Your task to perform on an android device: search for starred emails in the gmail app Image 0: 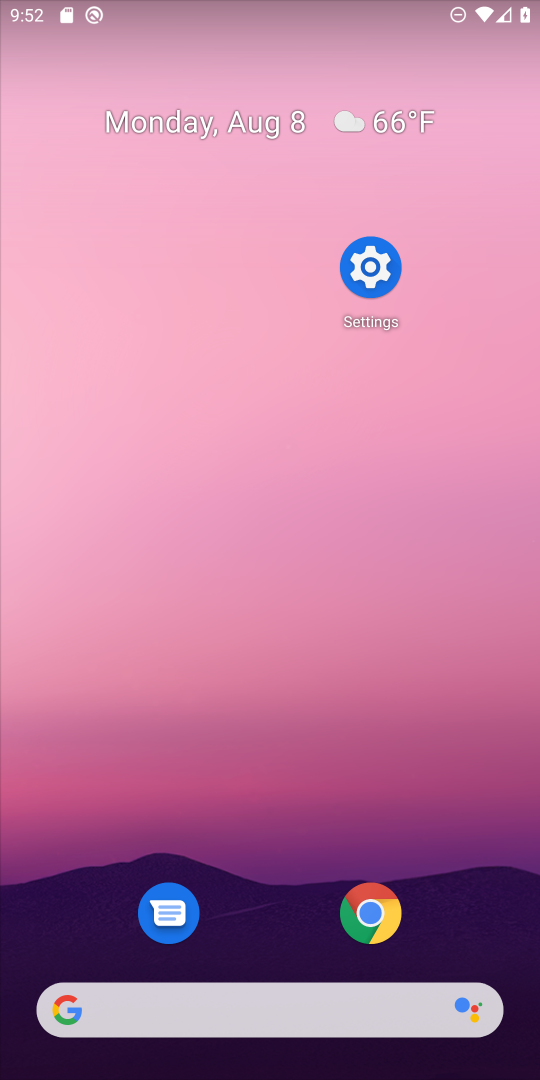
Step 0: drag from (236, 1000) to (231, 349)
Your task to perform on an android device: search for starred emails in the gmail app Image 1: 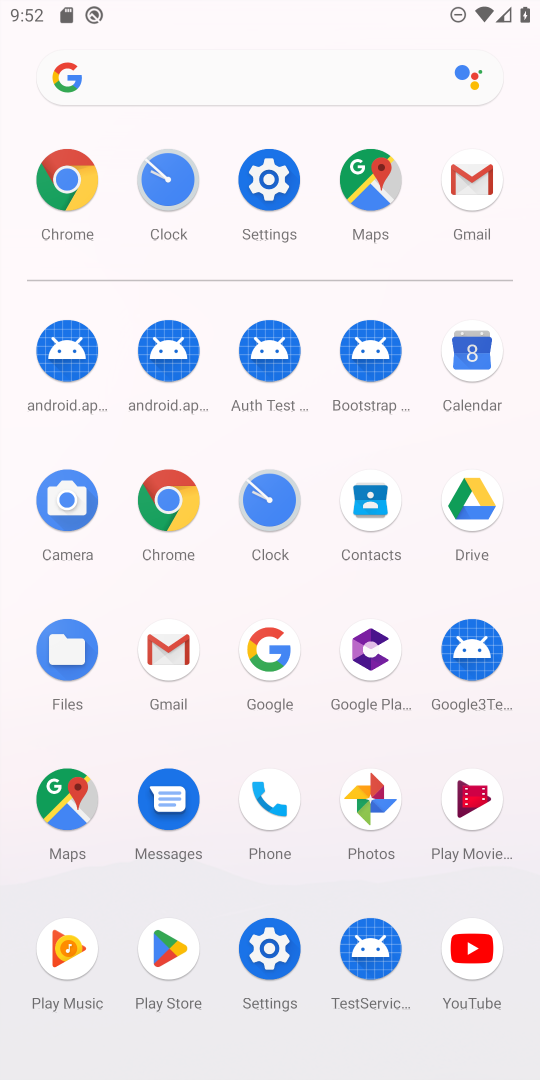
Step 1: click (470, 180)
Your task to perform on an android device: search for starred emails in the gmail app Image 2: 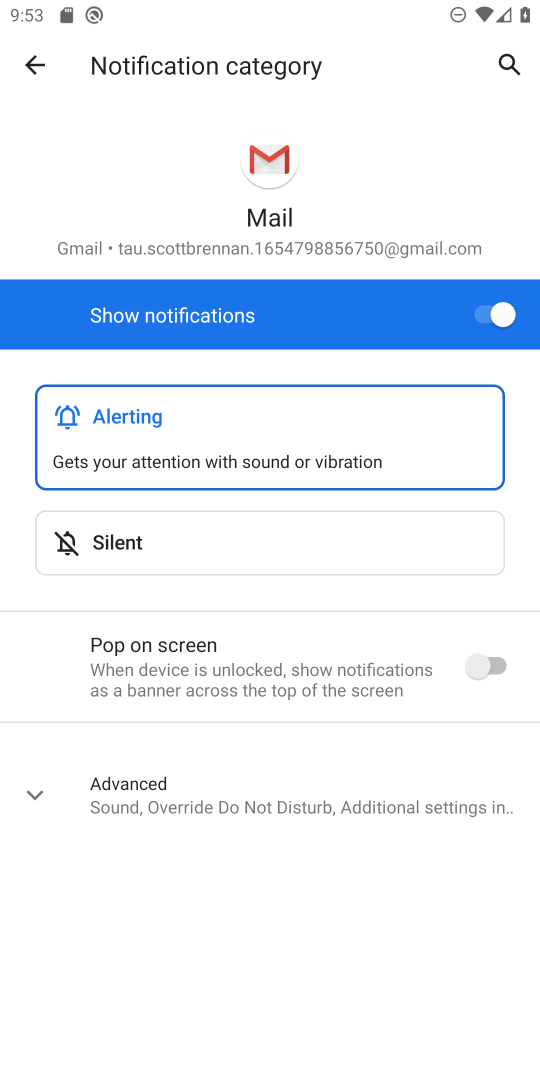
Step 2: press home button
Your task to perform on an android device: search for starred emails in the gmail app Image 3: 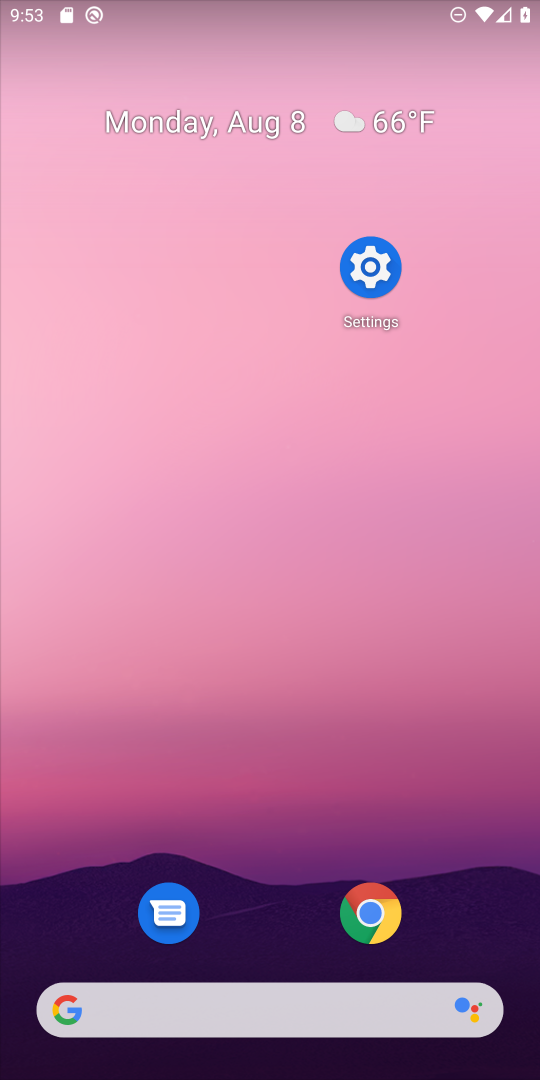
Step 3: drag from (254, 1000) to (293, 254)
Your task to perform on an android device: search for starred emails in the gmail app Image 4: 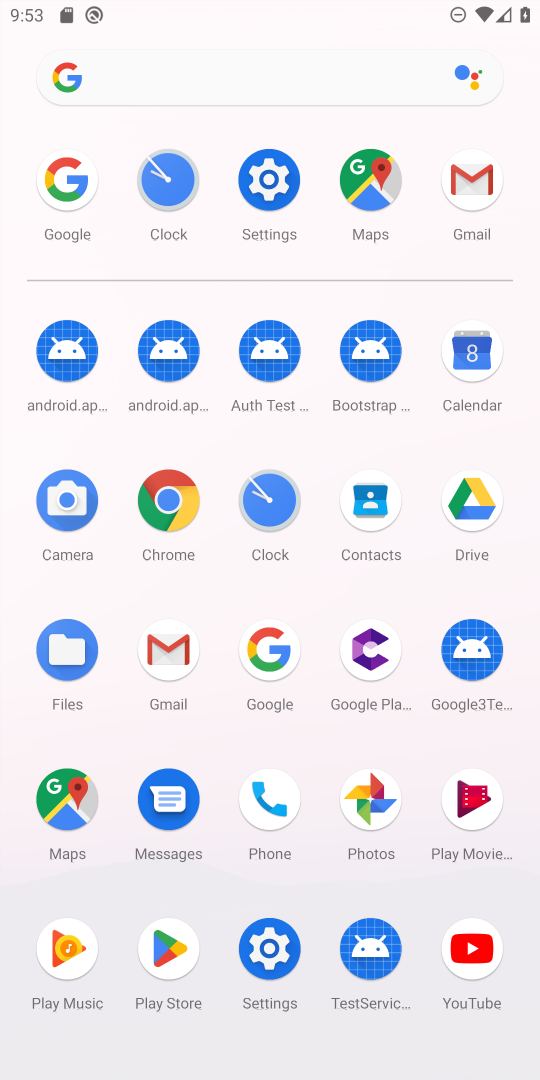
Step 4: click (476, 178)
Your task to perform on an android device: search for starred emails in the gmail app Image 5: 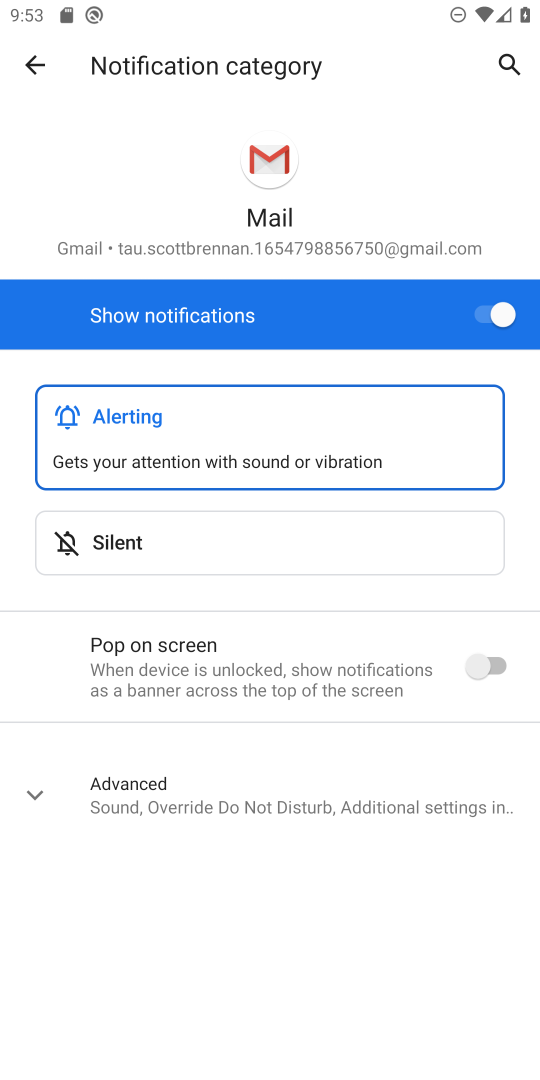
Step 5: press back button
Your task to perform on an android device: search for starred emails in the gmail app Image 6: 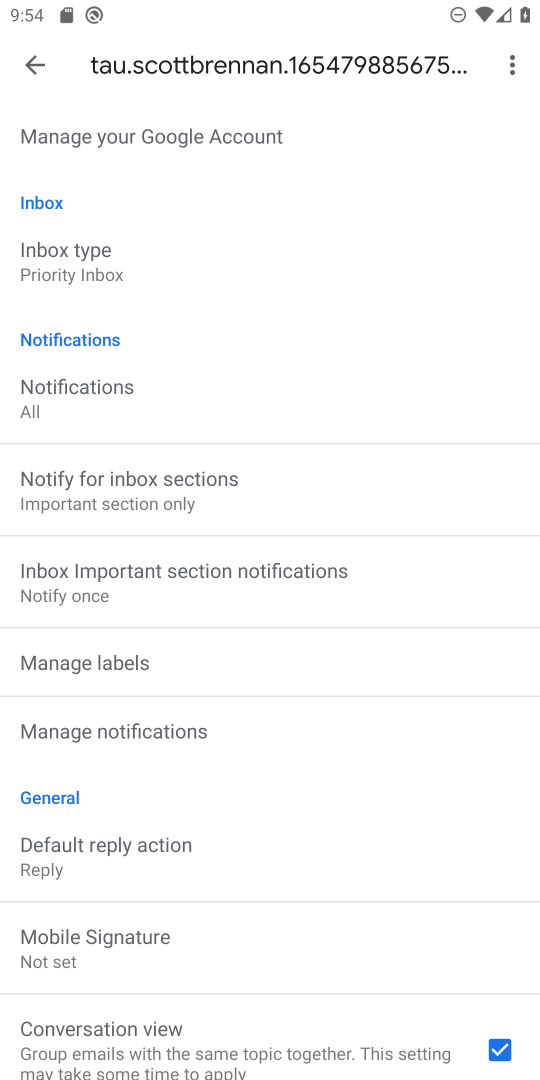
Step 6: press back button
Your task to perform on an android device: search for starred emails in the gmail app Image 7: 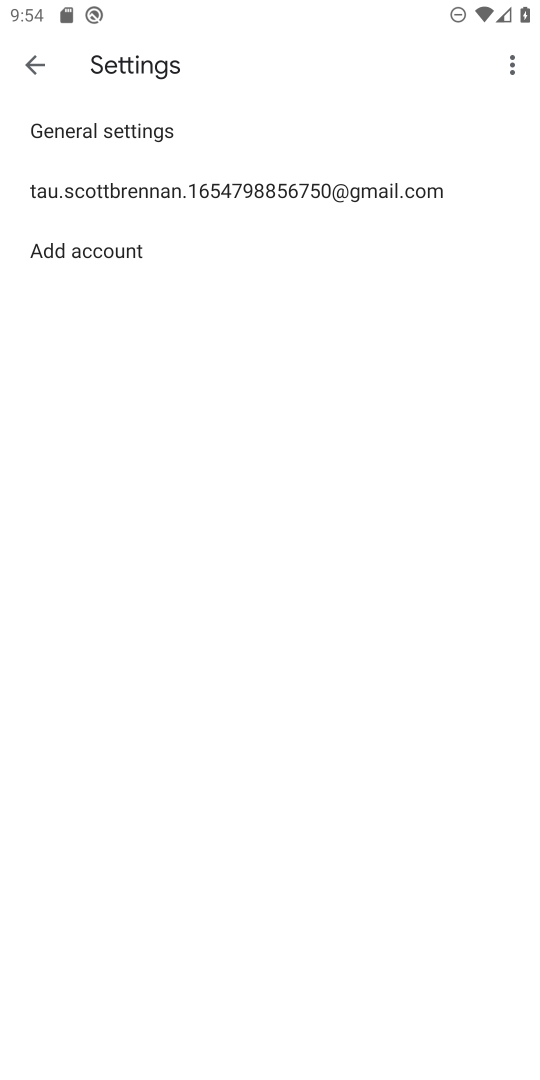
Step 7: press back button
Your task to perform on an android device: search for starred emails in the gmail app Image 8: 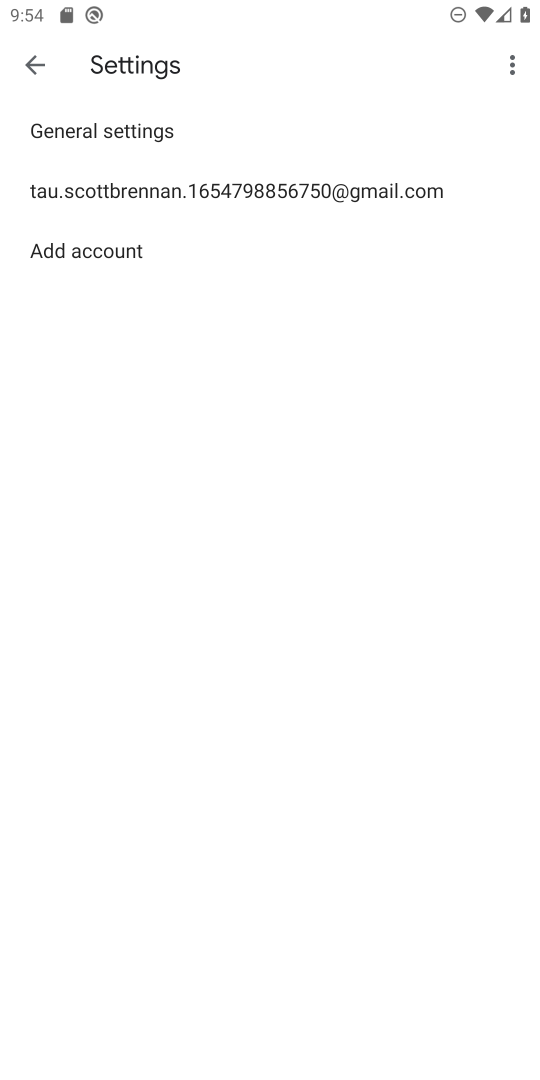
Step 8: press back button
Your task to perform on an android device: search for starred emails in the gmail app Image 9: 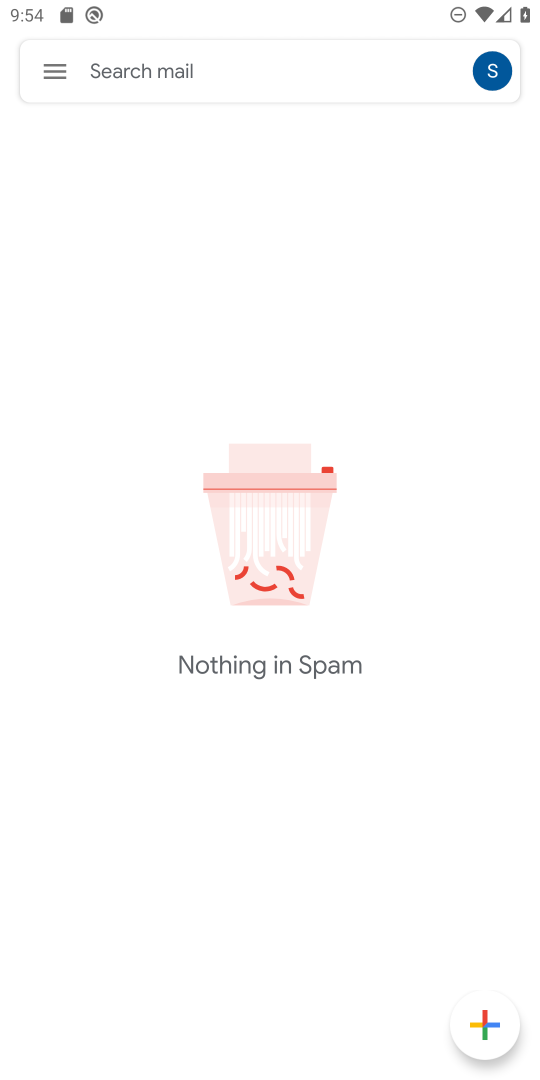
Step 9: click (47, 76)
Your task to perform on an android device: search for starred emails in the gmail app Image 10: 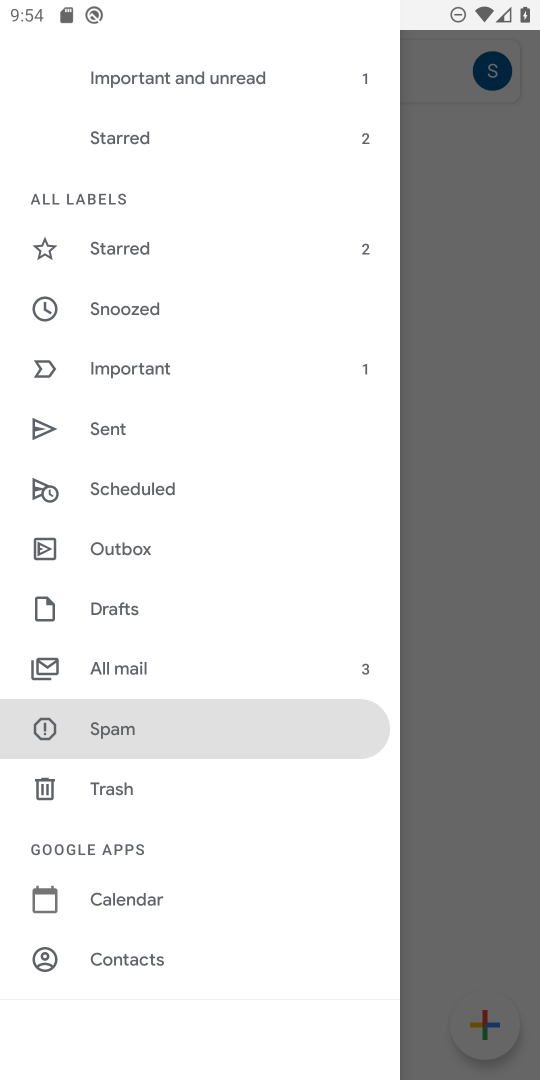
Step 10: click (146, 248)
Your task to perform on an android device: search for starred emails in the gmail app Image 11: 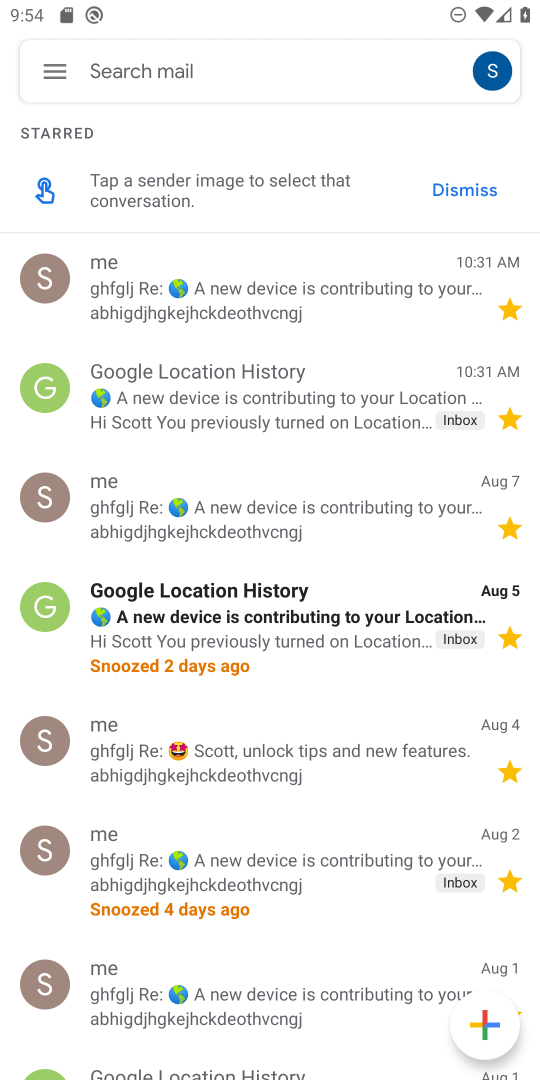
Step 11: task complete